Your task to perform on an android device: Open Android settings Image 0: 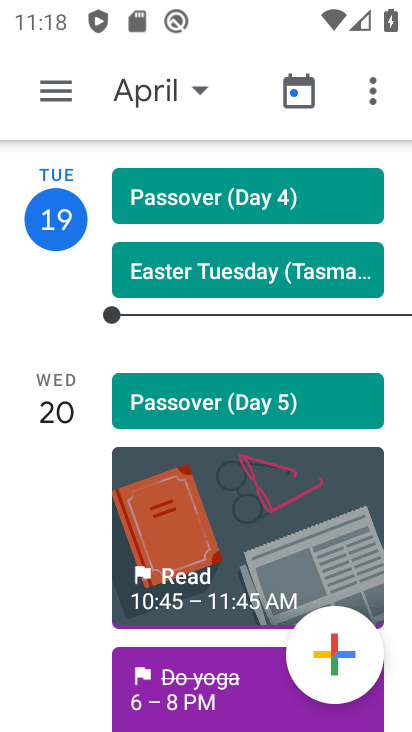
Step 0: press back button
Your task to perform on an android device: Open Android settings Image 1: 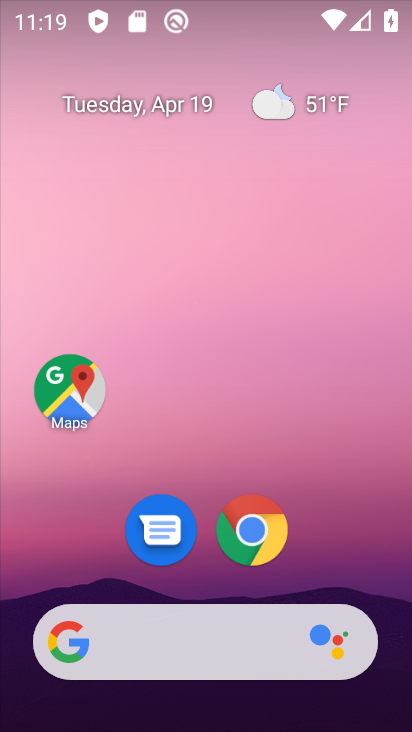
Step 1: drag from (140, 559) to (334, 4)
Your task to perform on an android device: Open Android settings Image 2: 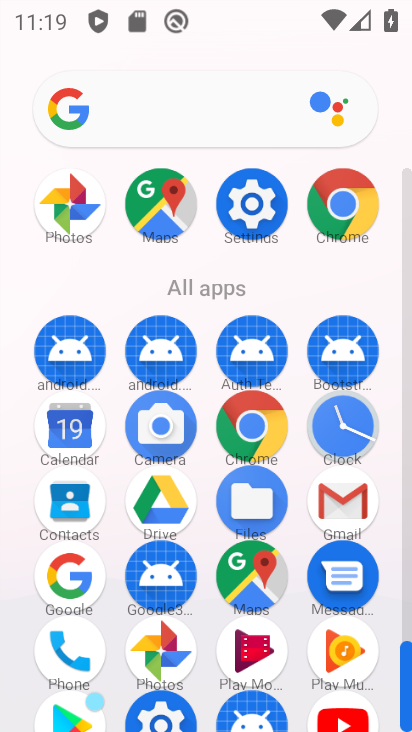
Step 2: drag from (178, 552) to (278, 276)
Your task to perform on an android device: Open Android settings Image 3: 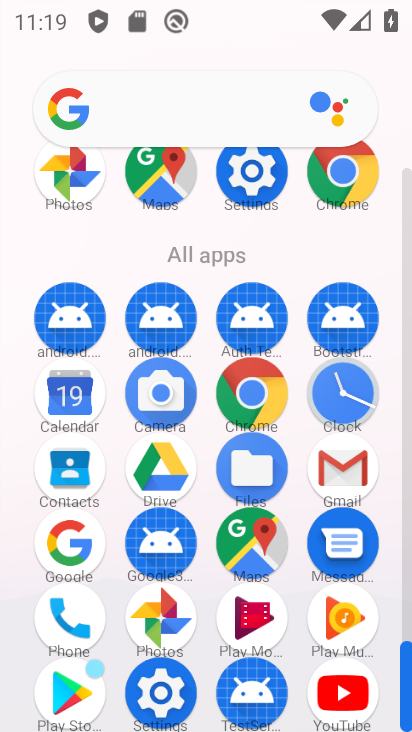
Step 3: click (142, 696)
Your task to perform on an android device: Open Android settings Image 4: 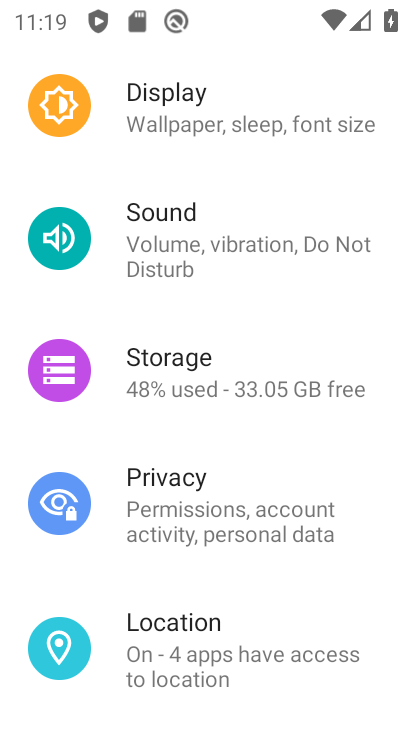
Step 4: task complete